Your task to perform on an android device: What is the news today? Image 0: 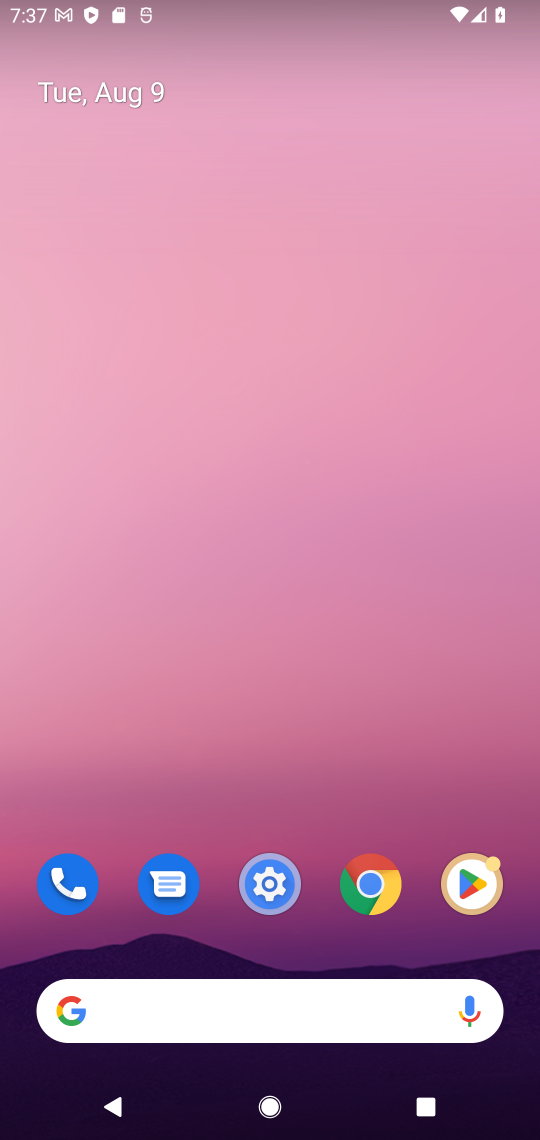
Step 0: drag from (32, 486) to (539, 795)
Your task to perform on an android device: What is the news today? Image 1: 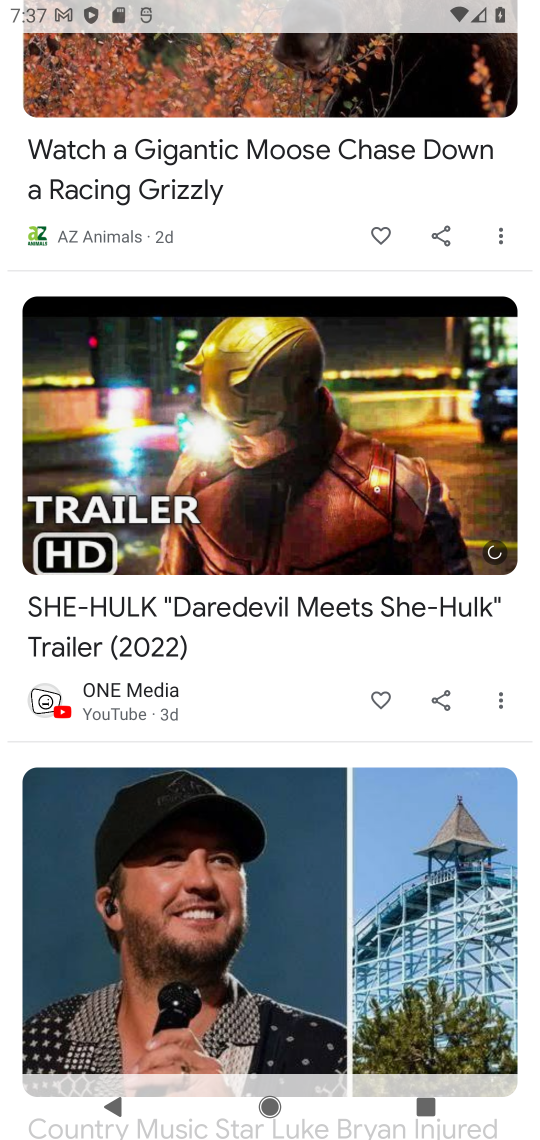
Step 1: task complete